Your task to perform on an android device: toggle data saver in the chrome app Image 0: 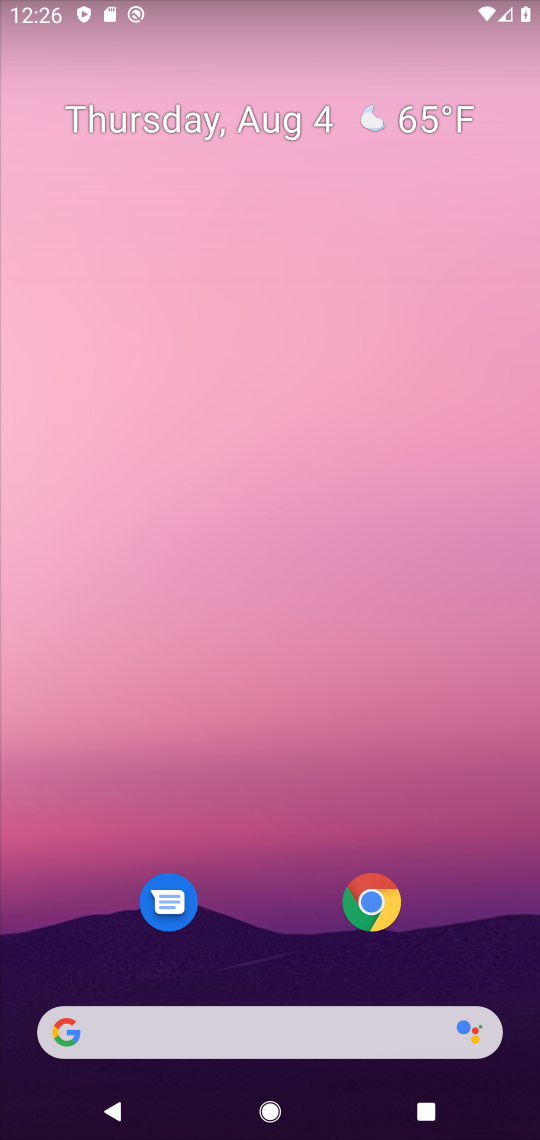
Step 0: click (374, 895)
Your task to perform on an android device: toggle data saver in the chrome app Image 1: 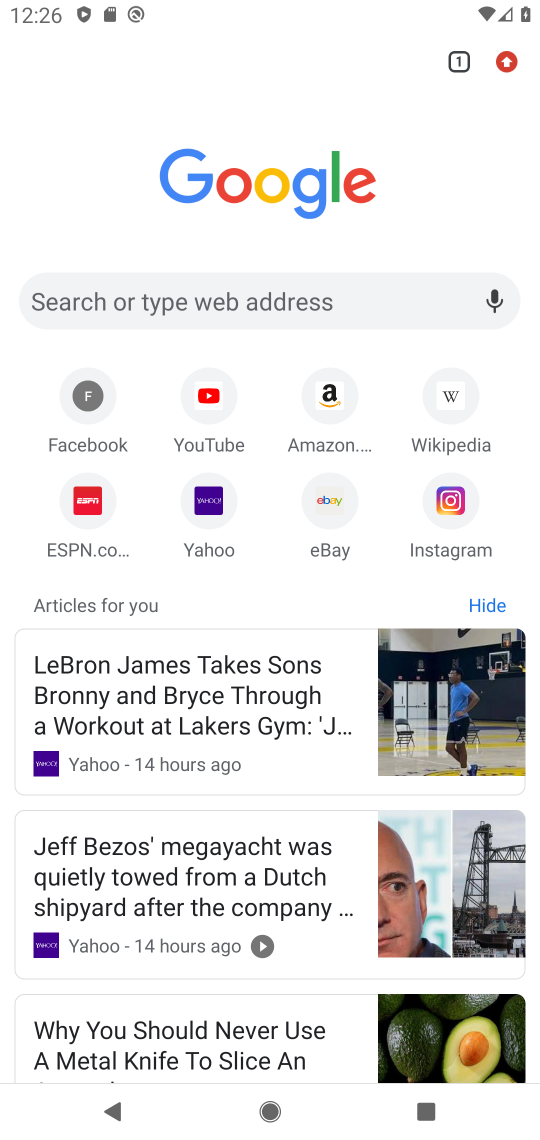
Step 1: click (500, 67)
Your task to perform on an android device: toggle data saver in the chrome app Image 2: 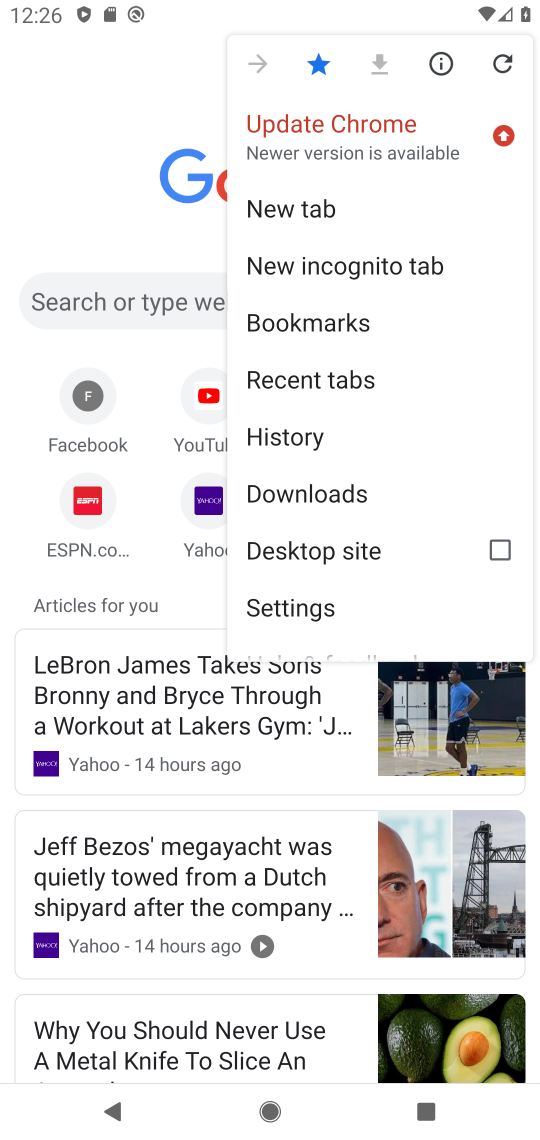
Step 2: click (289, 609)
Your task to perform on an android device: toggle data saver in the chrome app Image 3: 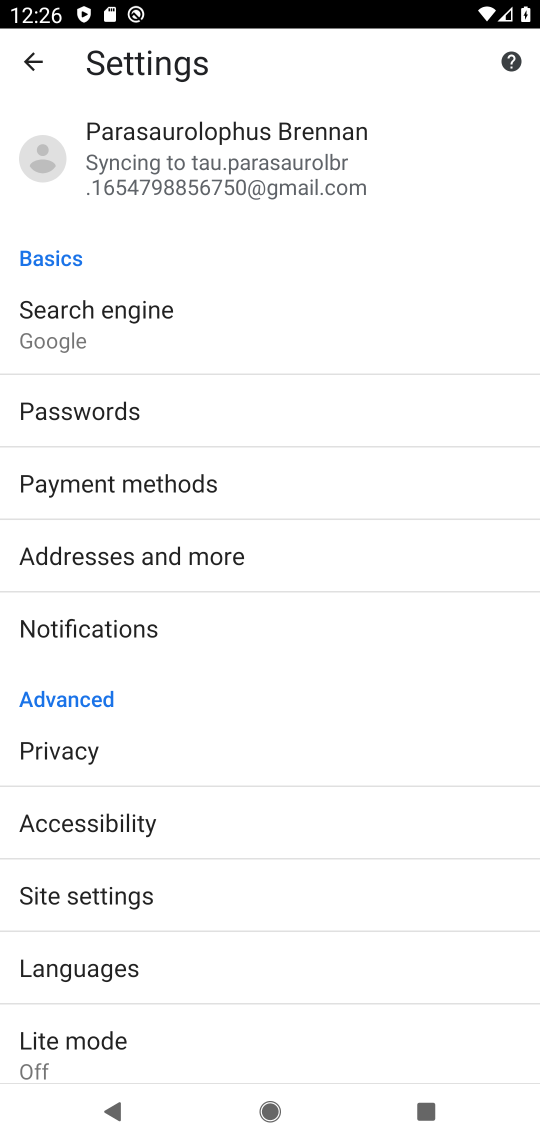
Step 3: drag from (334, 966) to (351, 507)
Your task to perform on an android device: toggle data saver in the chrome app Image 4: 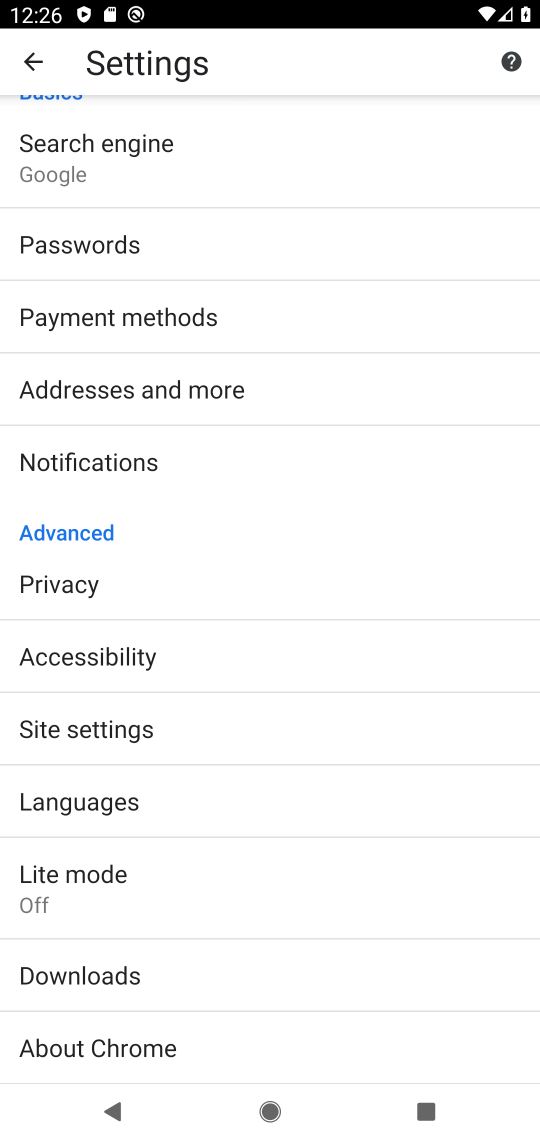
Step 4: click (76, 868)
Your task to perform on an android device: toggle data saver in the chrome app Image 5: 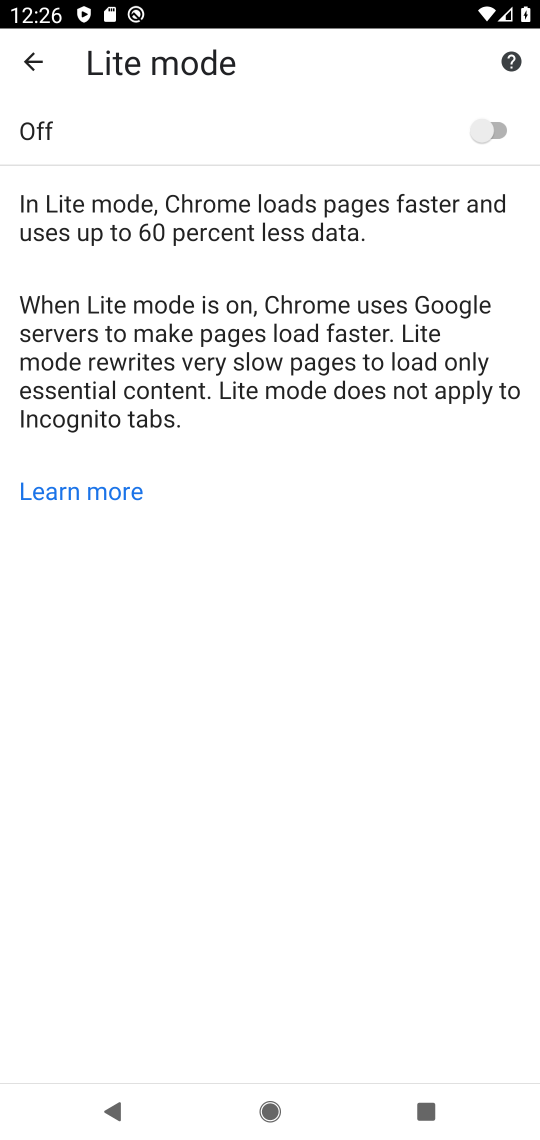
Step 5: click (500, 125)
Your task to perform on an android device: toggle data saver in the chrome app Image 6: 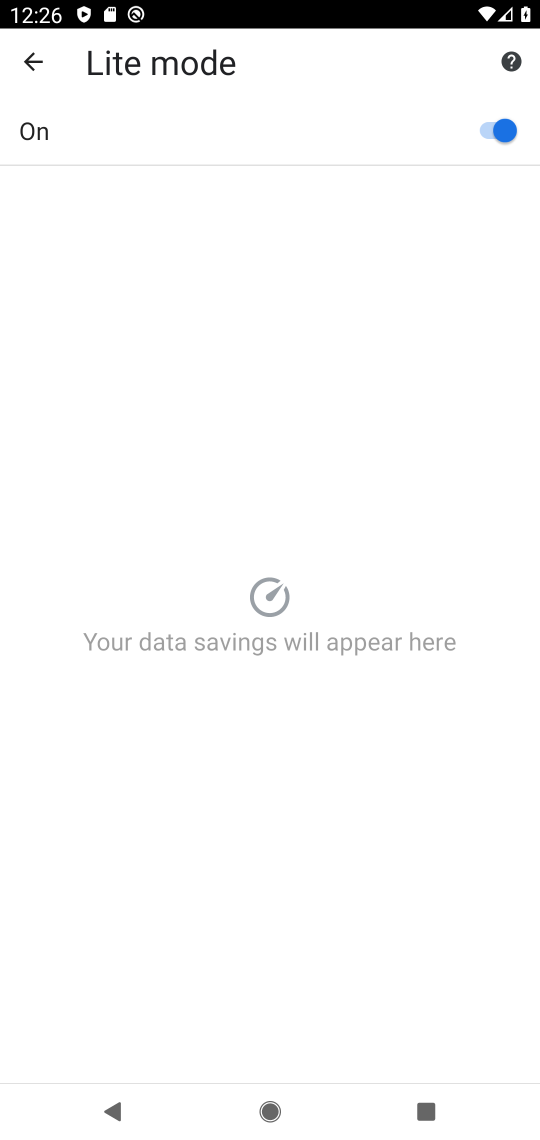
Step 6: task complete